Your task to perform on an android device: show emergency info Image 0: 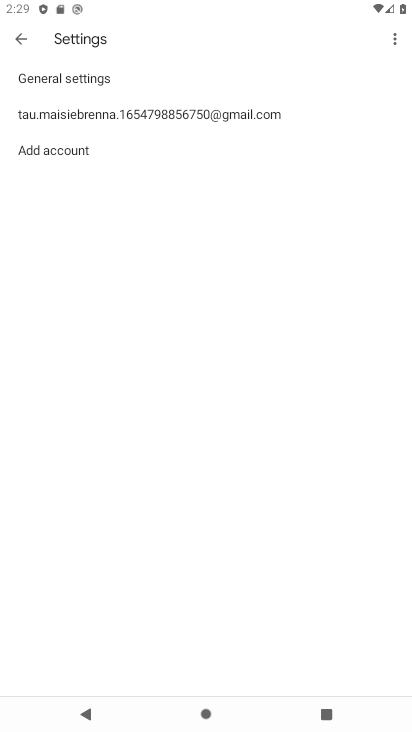
Step 0: click (18, 39)
Your task to perform on an android device: show emergency info Image 1: 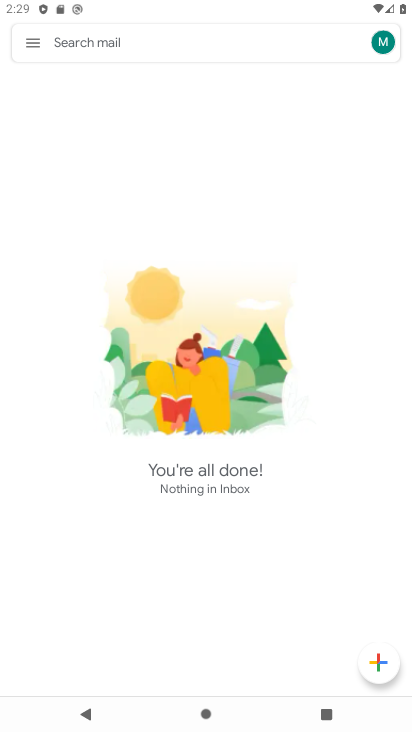
Step 1: press back button
Your task to perform on an android device: show emergency info Image 2: 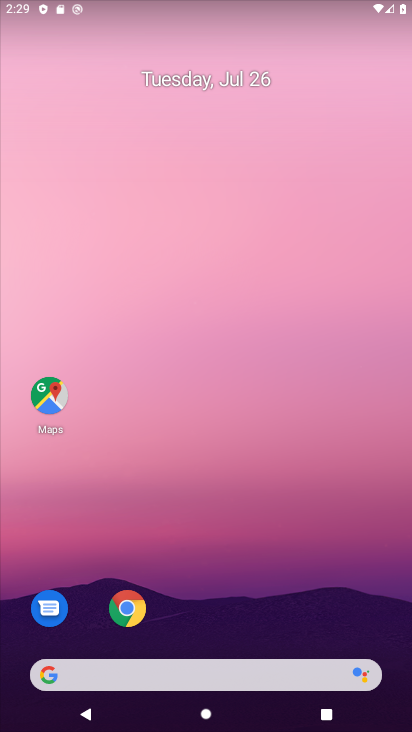
Step 2: drag from (246, 608) to (152, 7)
Your task to perform on an android device: show emergency info Image 3: 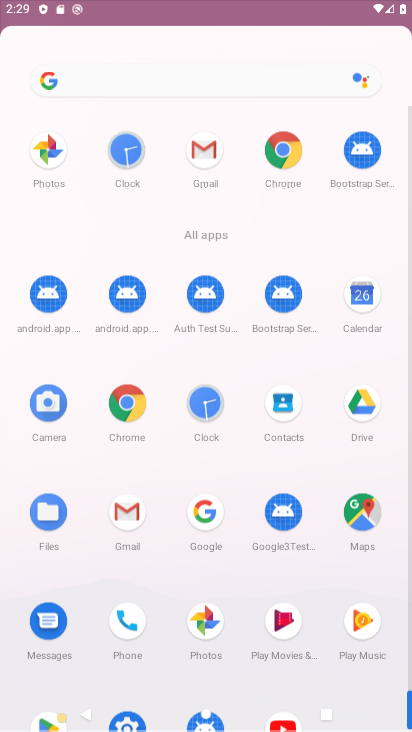
Step 3: drag from (210, 378) to (184, 113)
Your task to perform on an android device: show emergency info Image 4: 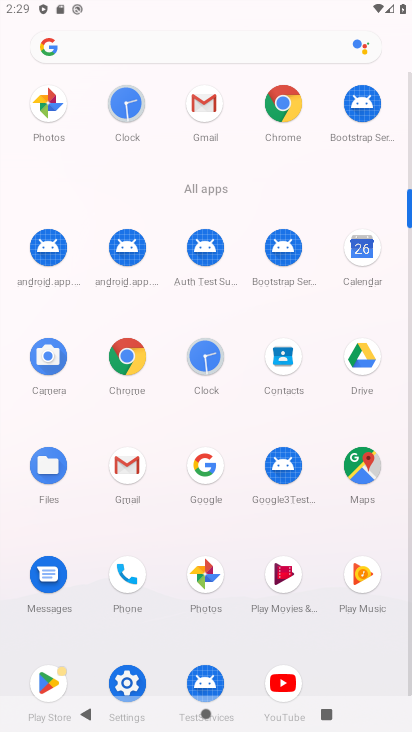
Step 4: click (124, 682)
Your task to perform on an android device: show emergency info Image 5: 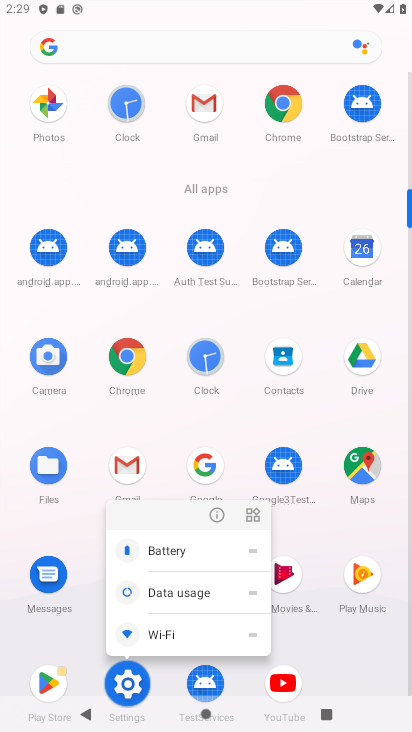
Step 5: click (124, 681)
Your task to perform on an android device: show emergency info Image 6: 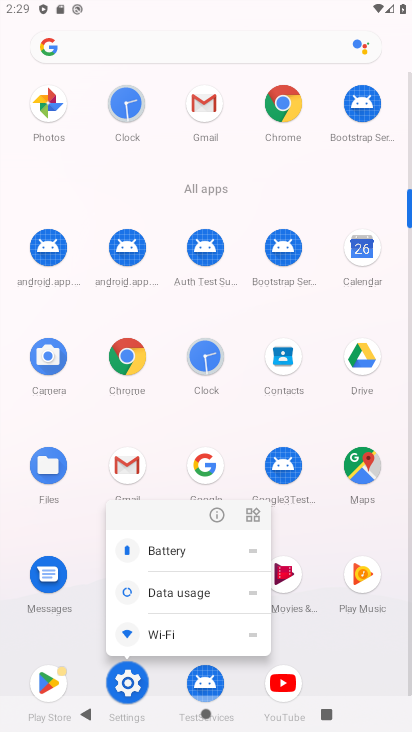
Step 6: click (128, 681)
Your task to perform on an android device: show emergency info Image 7: 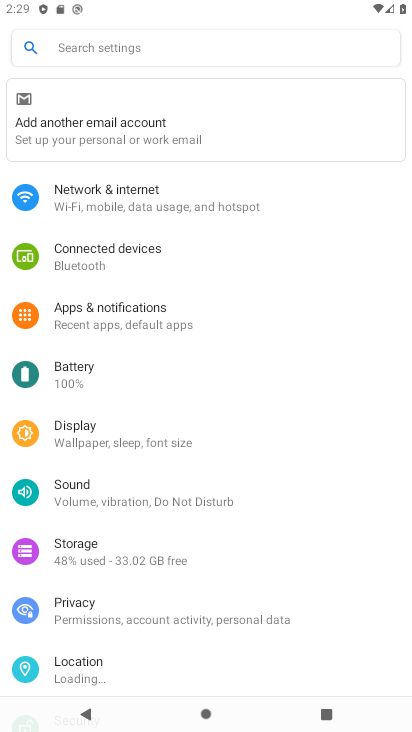
Step 7: drag from (141, 564) to (166, 4)
Your task to perform on an android device: show emergency info Image 8: 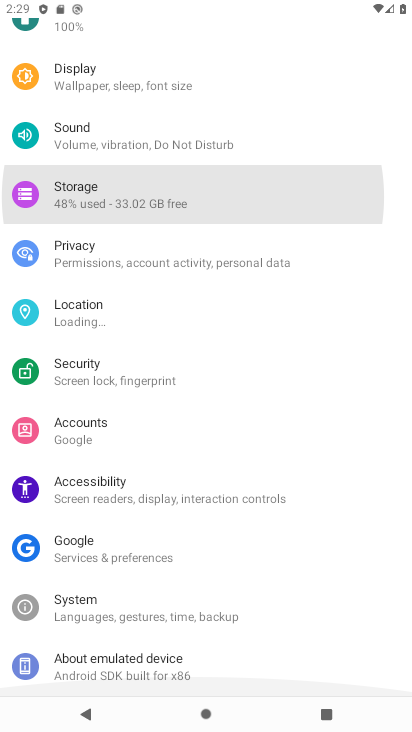
Step 8: drag from (157, 387) to (120, 127)
Your task to perform on an android device: show emergency info Image 9: 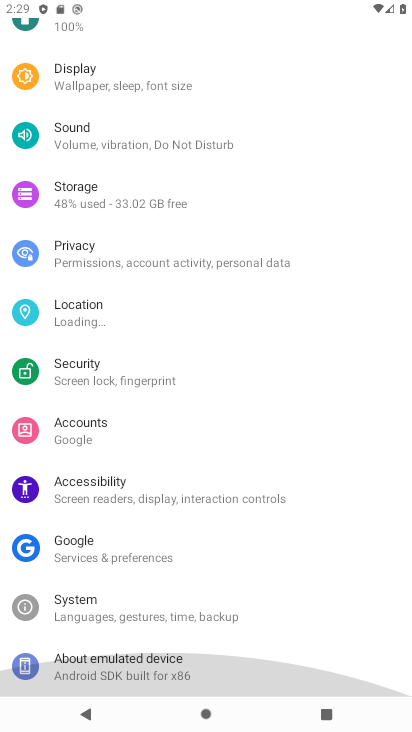
Step 9: drag from (147, 431) to (147, 98)
Your task to perform on an android device: show emergency info Image 10: 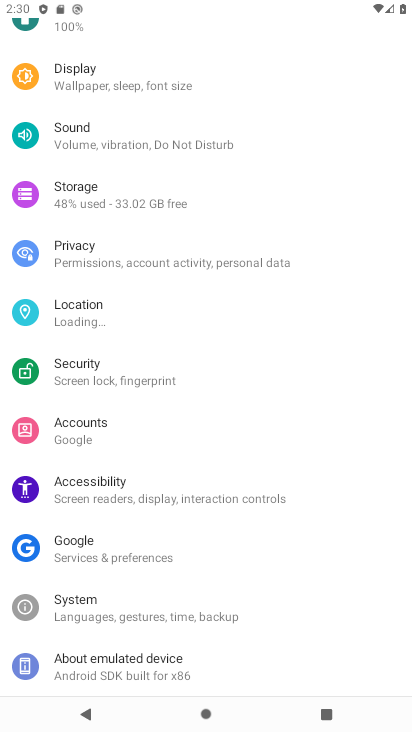
Step 10: drag from (123, 306) to (123, 146)
Your task to perform on an android device: show emergency info Image 11: 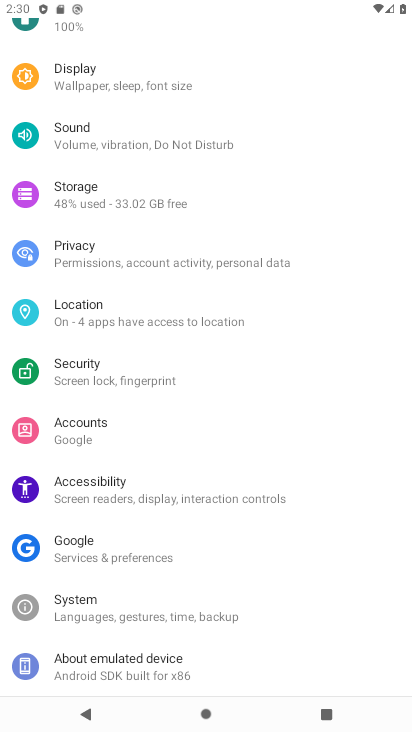
Step 11: click (125, 670)
Your task to perform on an android device: show emergency info Image 12: 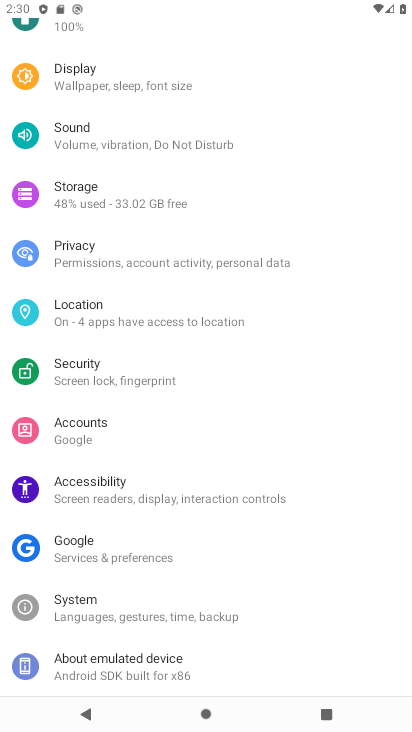
Step 12: click (125, 670)
Your task to perform on an android device: show emergency info Image 13: 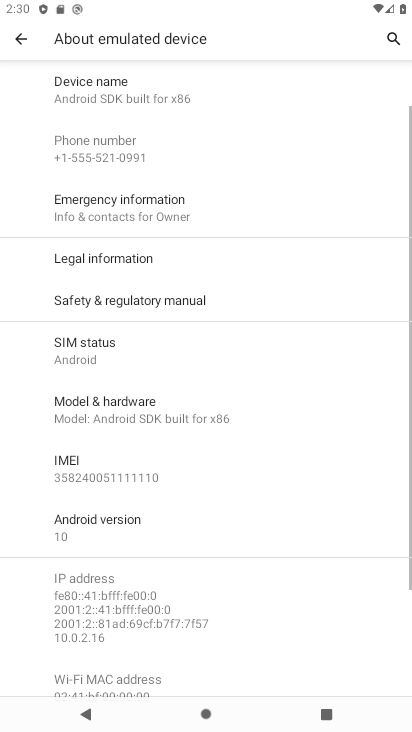
Step 13: click (127, 670)
Your task to perform on an android device: show emergency info Image 14: 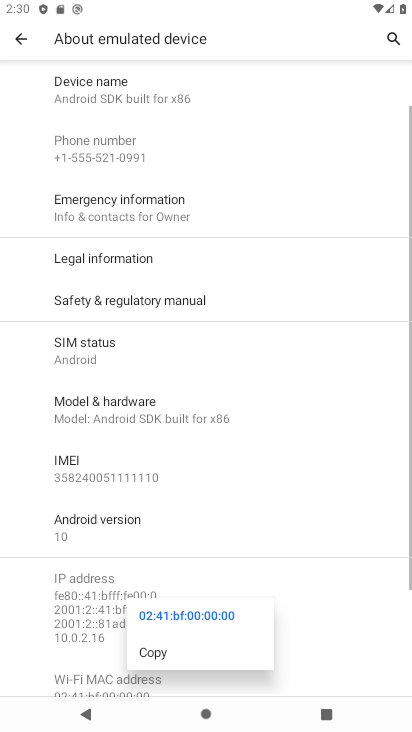
Step 14: task complete